Your task to perform on an android device: Open settings Image 0: 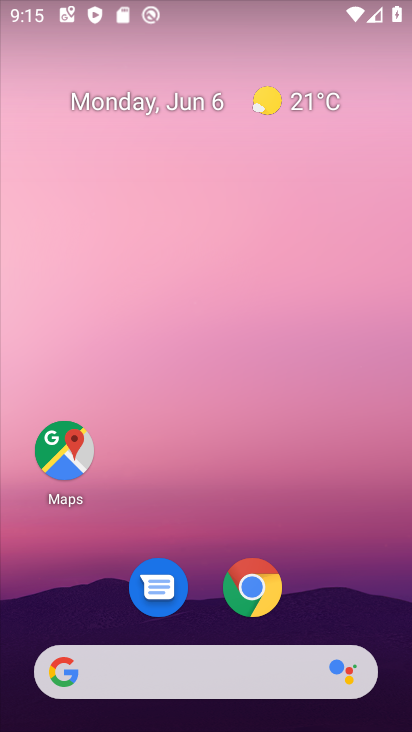
Step 0: drag from (171, 593) to (363, 11)
Your task to perform on an android device: Open settings Image 1: 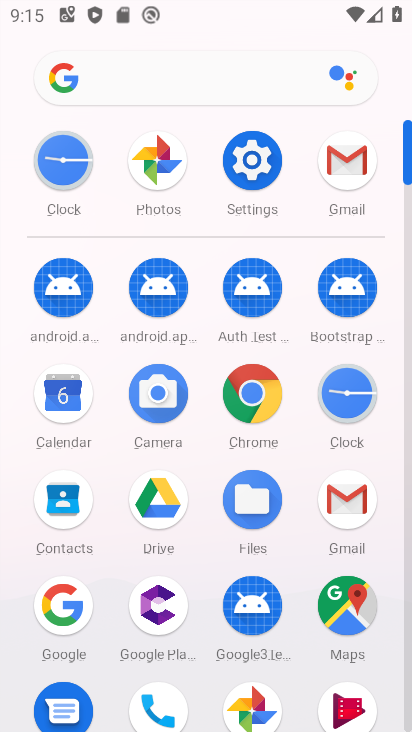
Step 1: click (238, 157)
Your task to perform on an android device: Open settings Image 2: 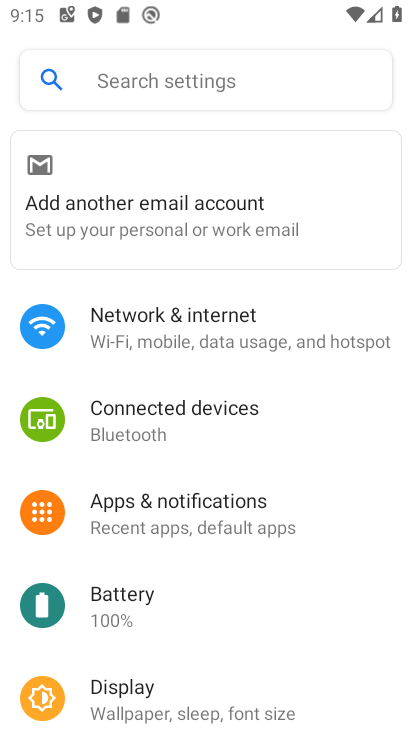
Step 2: task complete